Your task to perform on an android device: check google app version Image 0: 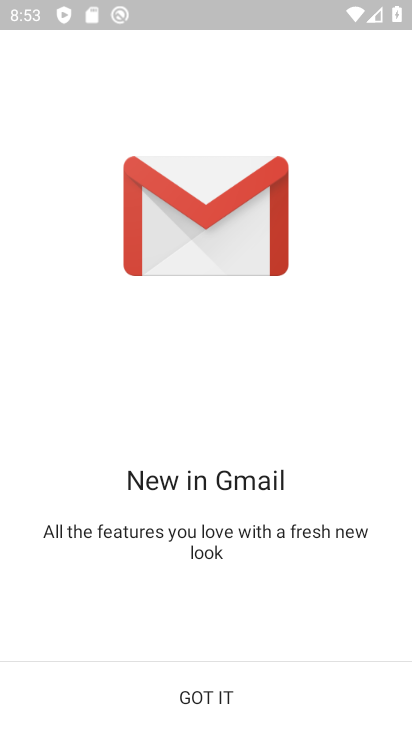
Step 0: press home button
Your task to perform on an android device: check google app version Image 1: 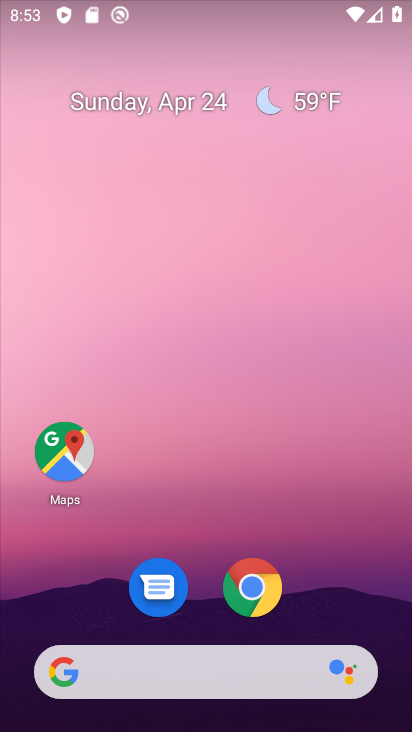
Step 1: drag from (203, 517) to (206, 98)
Your task to perform on an android device: check google app version Image 2: 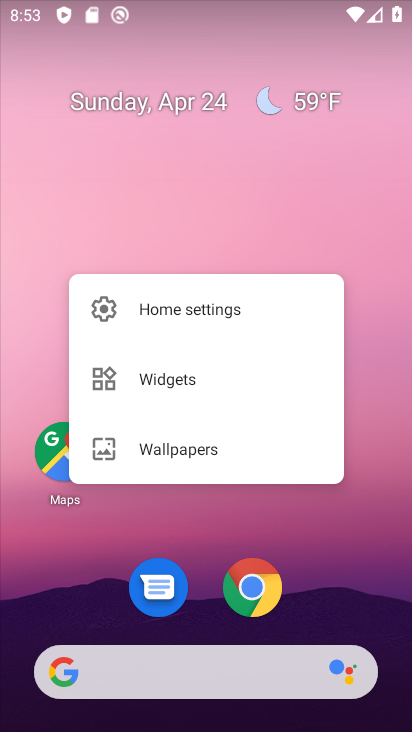
Step 2: drag from (242, 234) to (228, 1)
Your task to perform on an android device: check google app version Image 3: 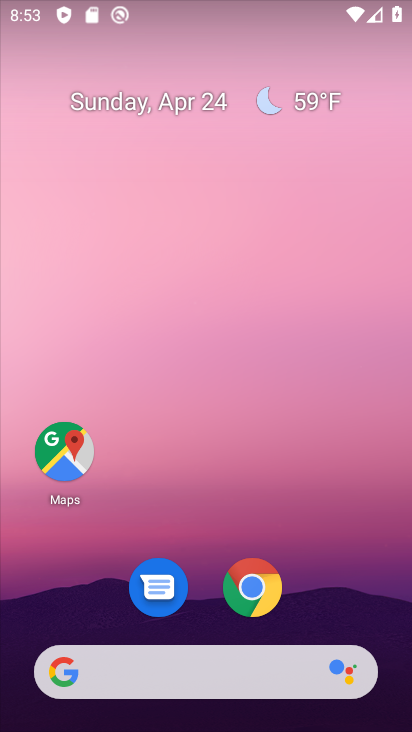
Step 3: drag from (178, 417) to (171, 4)
Your task to perform on an android device: check google app version Image 4: 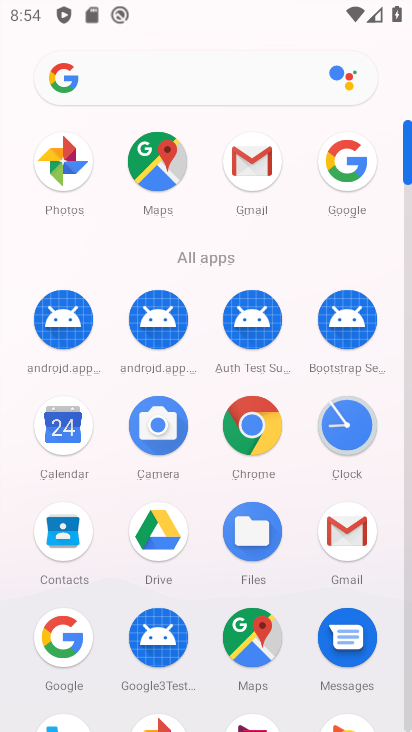
Step 4: click (342, 163)
Your task to perform on an android device: check google app version Image 5: 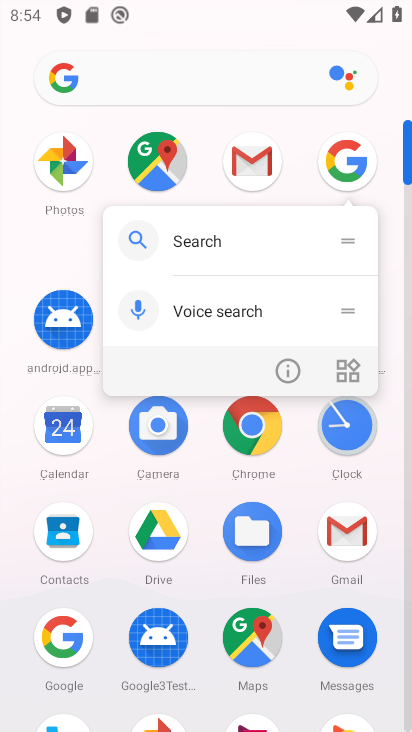
Step 5: click (291, 374)
Your task to perform on an android device: check google app version Image 6: 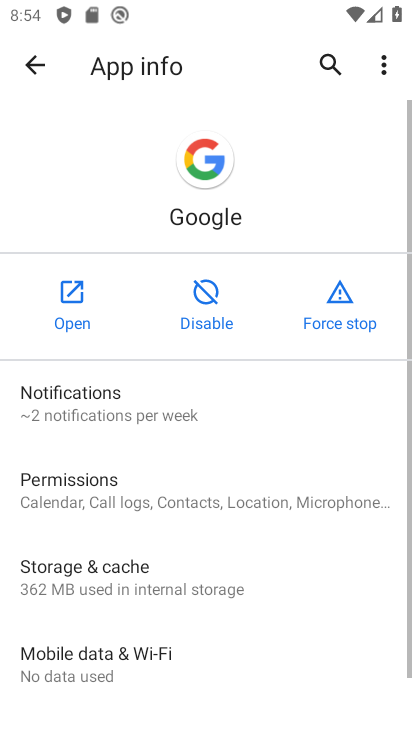
Step 6: drag from (176, 543) to (243, 378)
Your task to perform on an android device: check google app version Image 7: 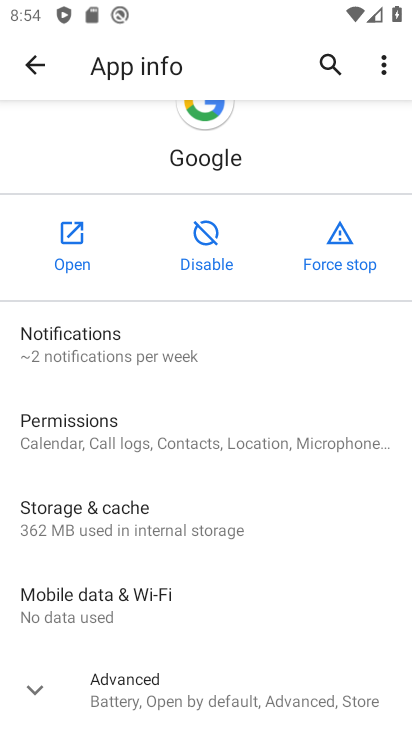
Step 7: drag from (209, 501) to (249, 395)
Your task to perform on an android device: check google app version Image 8: 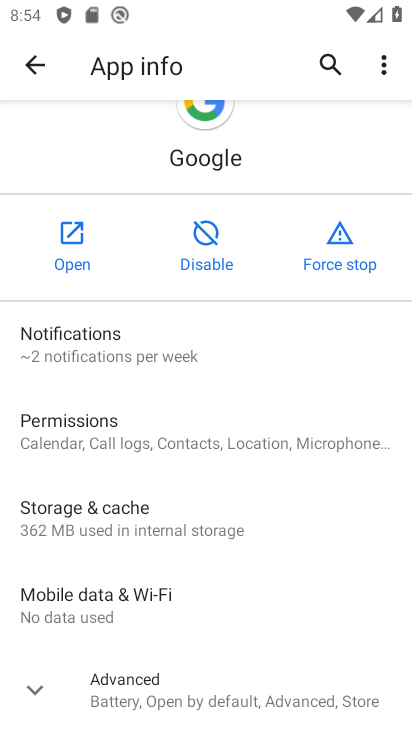
Step 8: click (171, 691)
Your task to perform on an android device: check google app version Image 9: 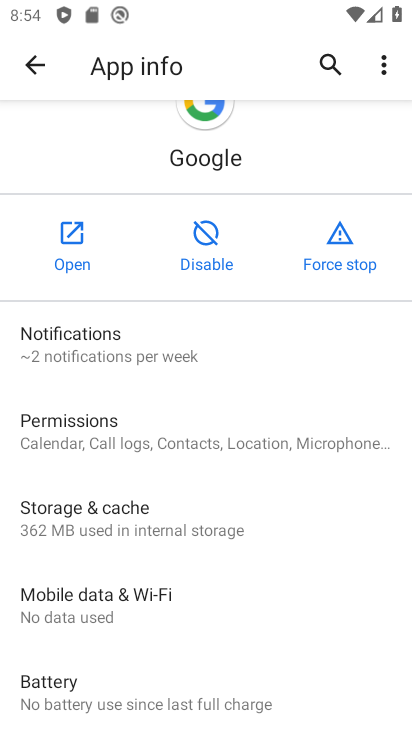
Step 9: task complete